Your task to perform on an android device: Is it going to rain today? Image 0: 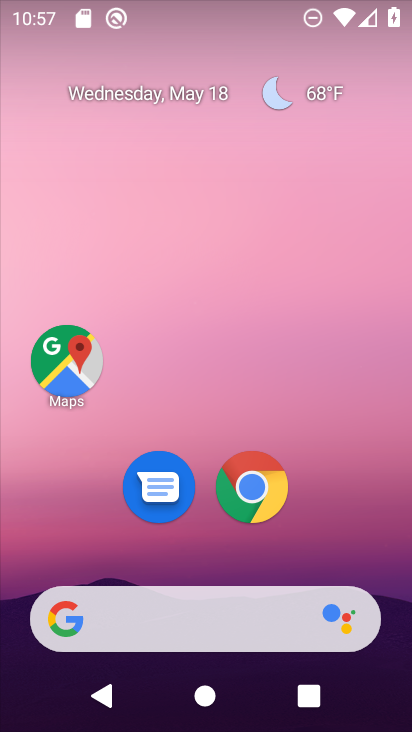
Step 0: drag from (341, 544) to (308, 95)
Your task to perform on an android device: Is it going to rain today? Image 1: 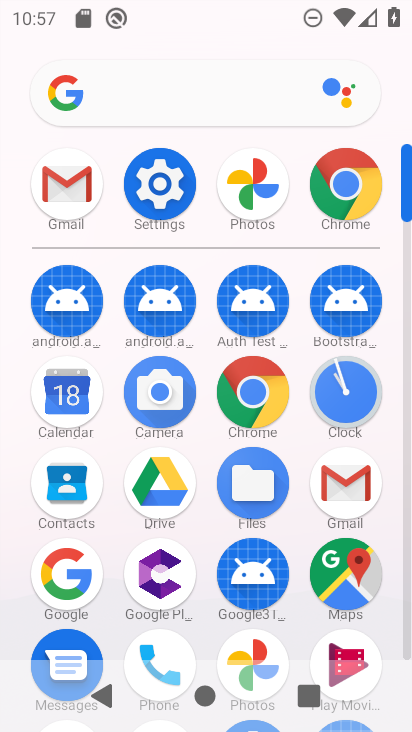
Step 1: click (245, 412)
Your task to perform on an android device: Is it going to rain today? Image 2: 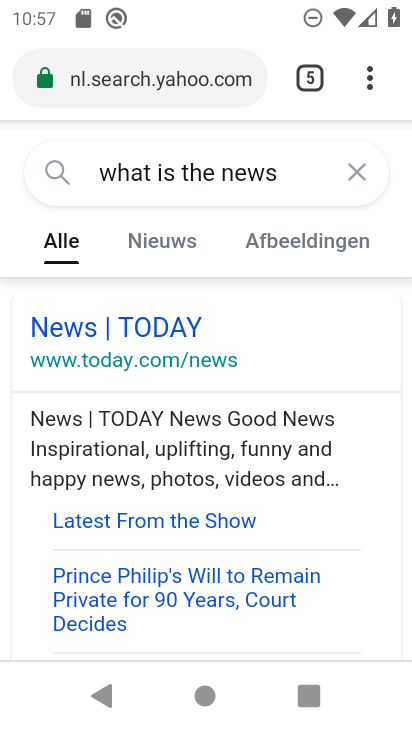
Step 2: click (350, 166)
Your task to perform on an android device: Is it going to rain today? Image 3: 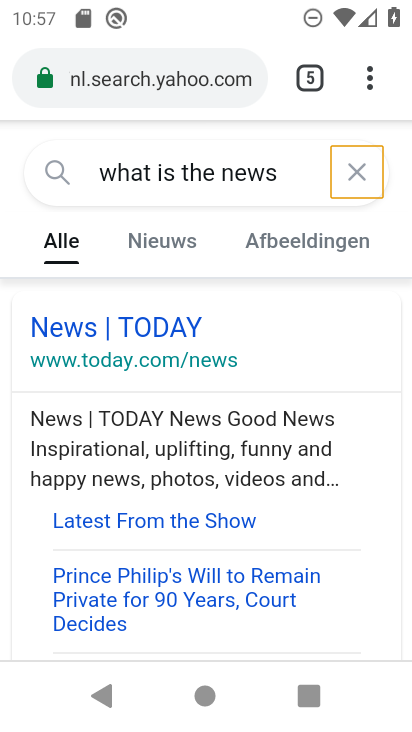
Step 3: click (177, 74)
Your task to perform on an android device: Is it going to rain today? Image 4: 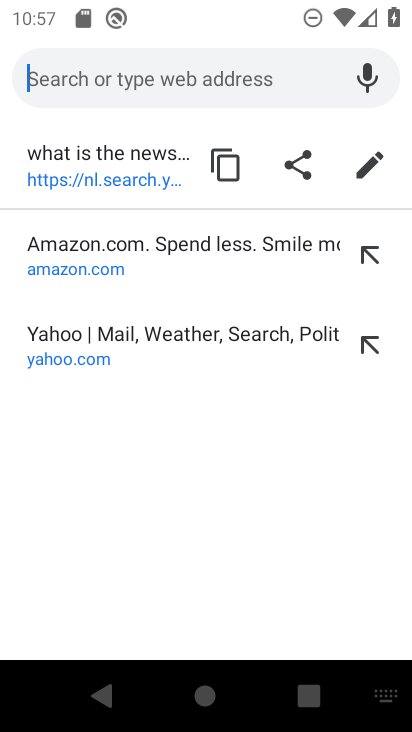
Step 4: type "is it going to rain today"
Your task to perform on an android device: Is it going to rain today? Image 5: 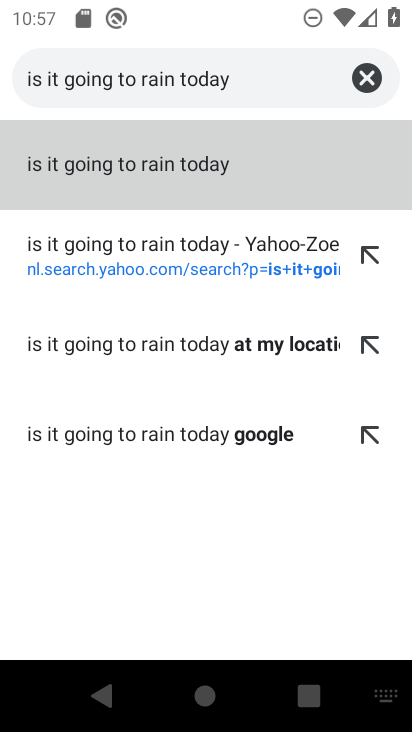
Step 5: click (210, 169)
Your task to perform on an android device: Is it going to rain today? Image 6: 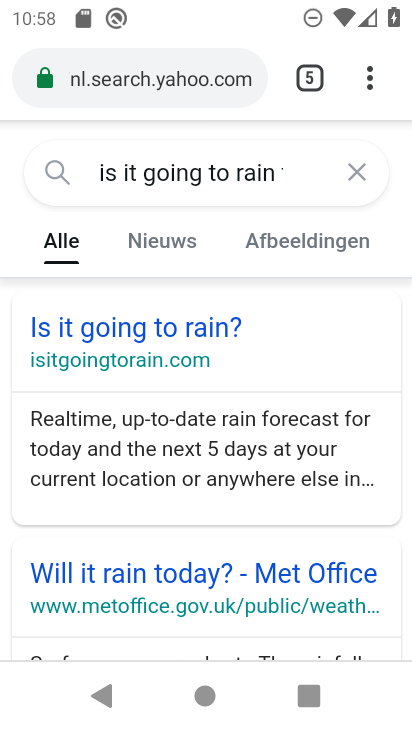
Step 6: click (154, 573)
Your task to perform on an android device: Is it going to rain today? Image 7: 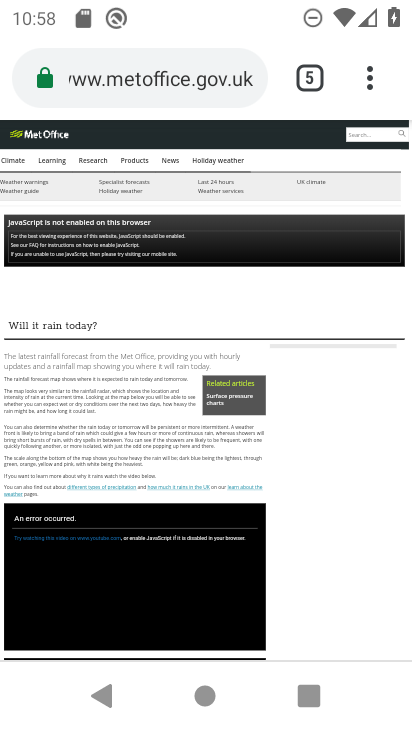
Step 7: task complete